Your task to perform on an android device: toggle pop-ups in chrome Image 0: 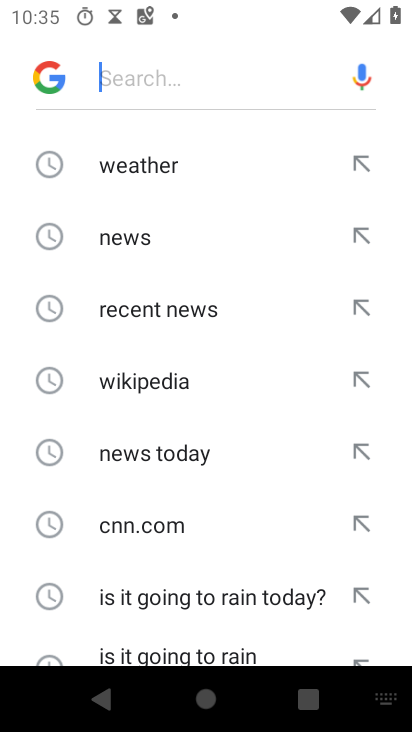
Step 0: press home button
Your task to perform on an android device: toggle pop-ups in chrome Image 1: 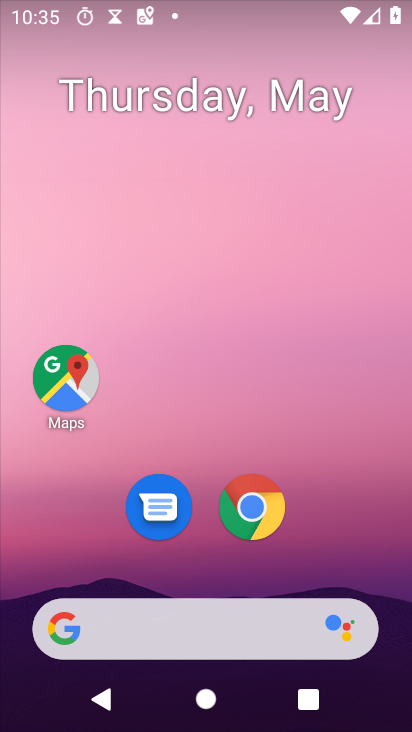
Step 1: click (244, 514)
Your task to perform on an android device: toggle pop-ups in chrome Image 2: 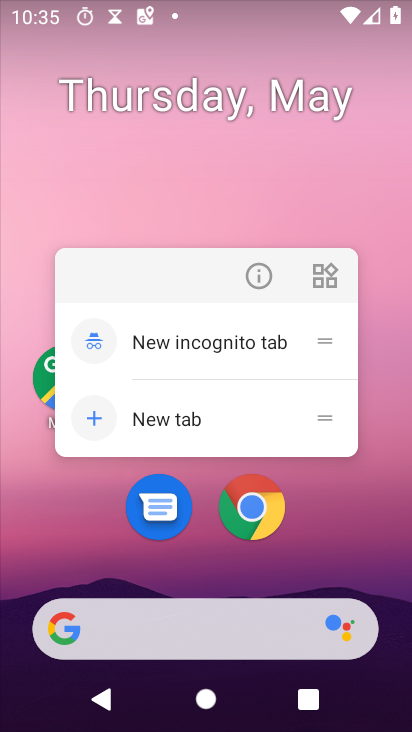
Step 2: click (258, 515)
Your task to perform on an android device: toggle pop-ups in chrome Image 3: 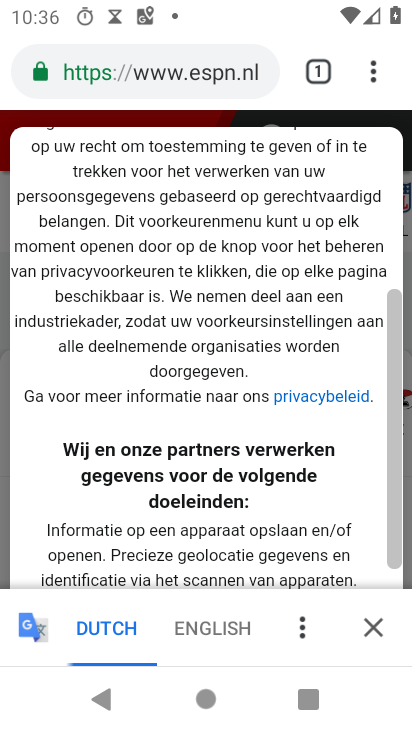
Step 3: click (370, 71)
Your task to perform on an android device: toggle pop-ups in chrome Image 4: 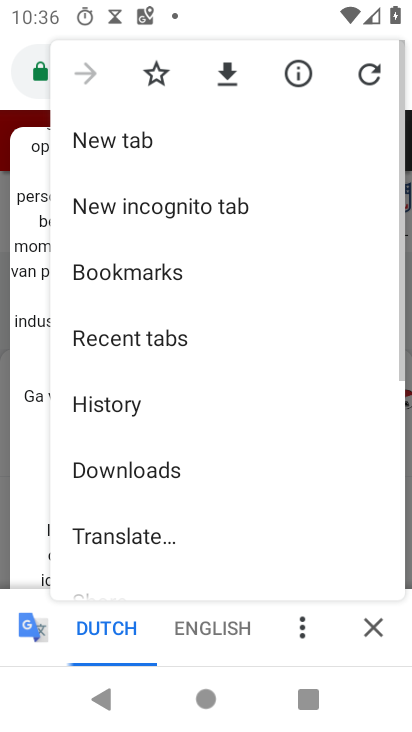
Step 4: drag from (227, 543) to (249, 155)
Your task to perform on an android device: toggle pop-ups in chrome Image 5: 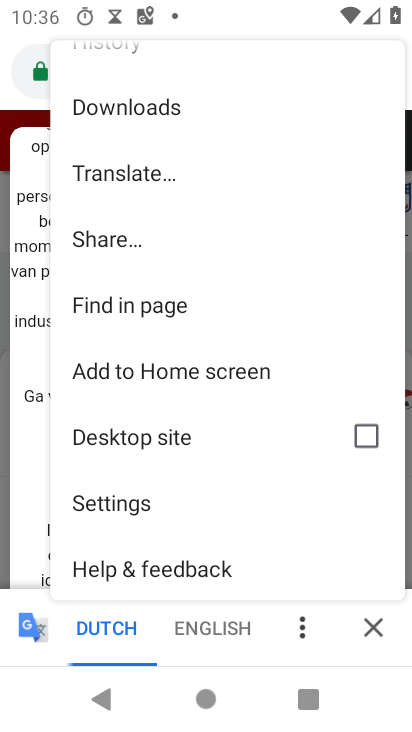
Step 5: click (136, 504)
Your task to perform on an android device: toggle pop-ups in chrome Image 6: 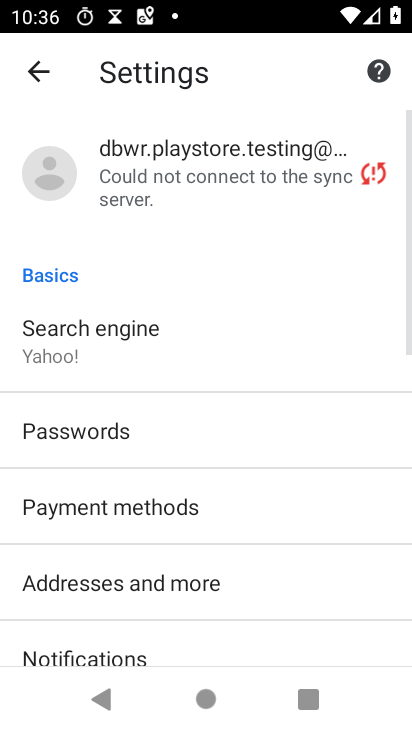
Step 6: drag from (317, 619) to (306, 223)
Your task to perform on an android device: toggle pop-ups in chrome Image 7: 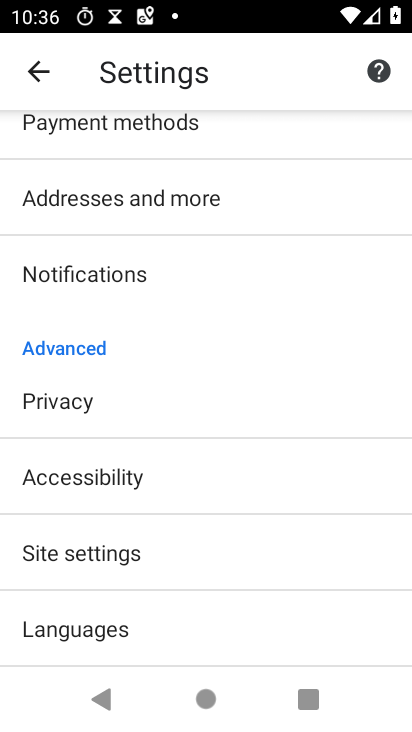
Step 7: click (126, 550)
Your task to perform on an android device: toggle pop-ups in chrome Image 8: 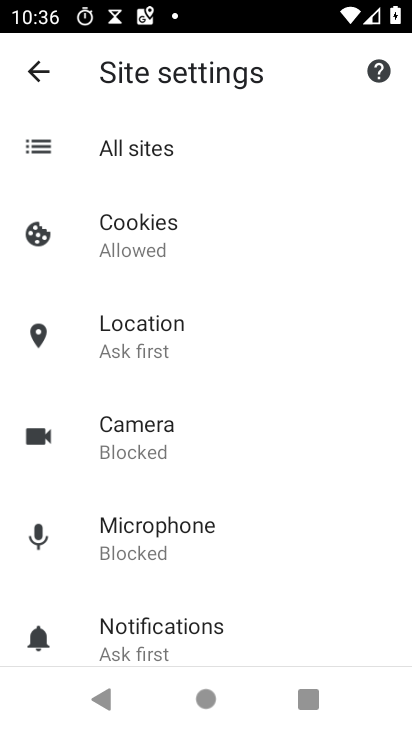
Step 8: drag from (296, 587) to (274, 219)
Your task to perform on an android device: toggle pop-ups in chrome Image 9: 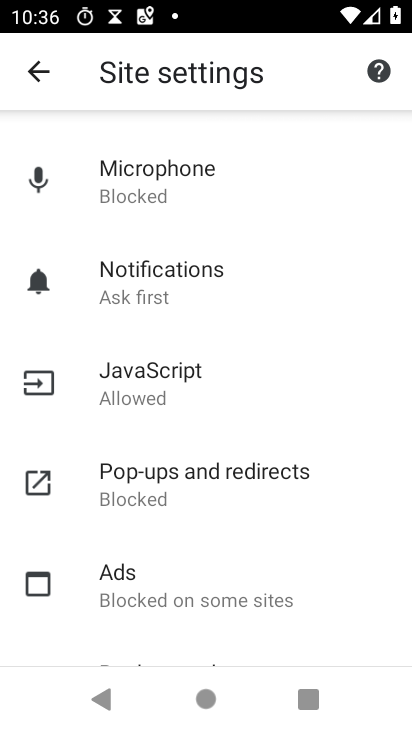
Step 9: click (200, 492)
Your task to perform on an android device: toggle pop-ups in chrome Image 10: 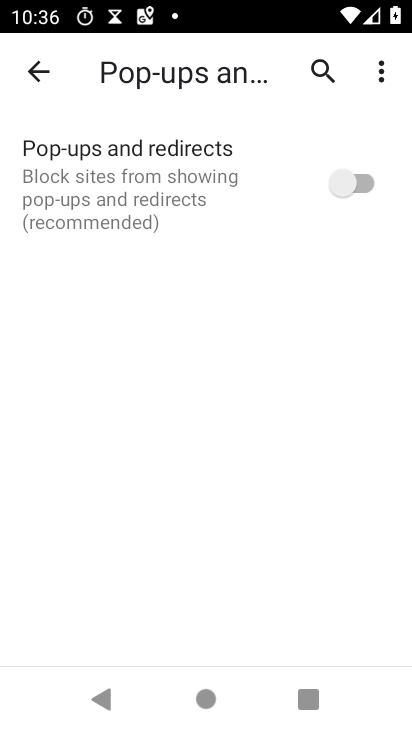
Step 10: click (373, 180)
Your task to perform on an android device: toggle pop-ups in chrome Image 11: 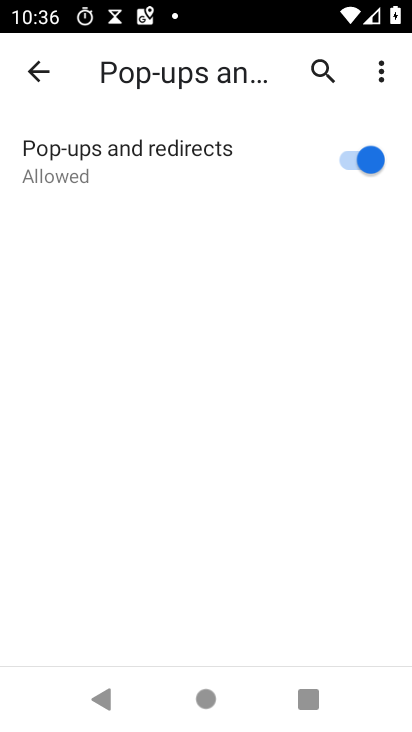
Step 11: task complete